Your task to perform on an android device: turn on location history Image 0: 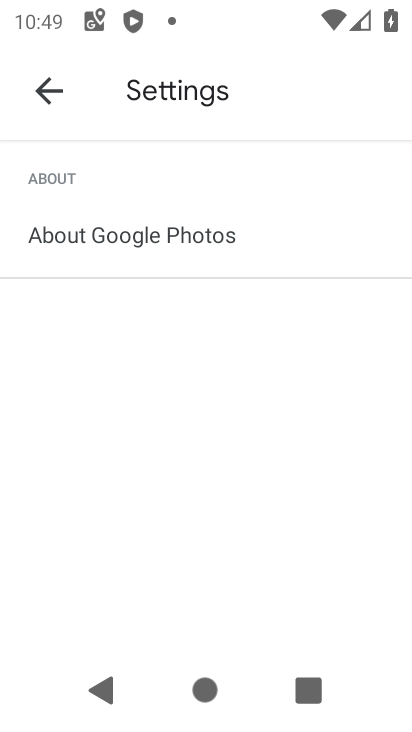
Step 0: press home button
Your task to perform on an android device: turn on location history Image 1: 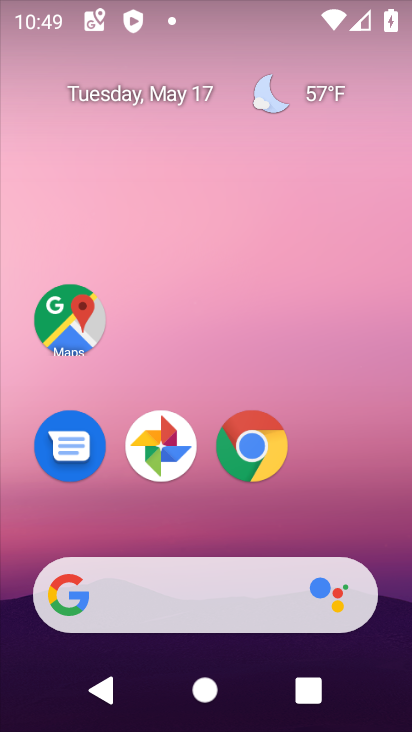
Step 1: drag from (182, 576) to (191, 15)
Your task to perform on an android device: turn on location history Image 2: 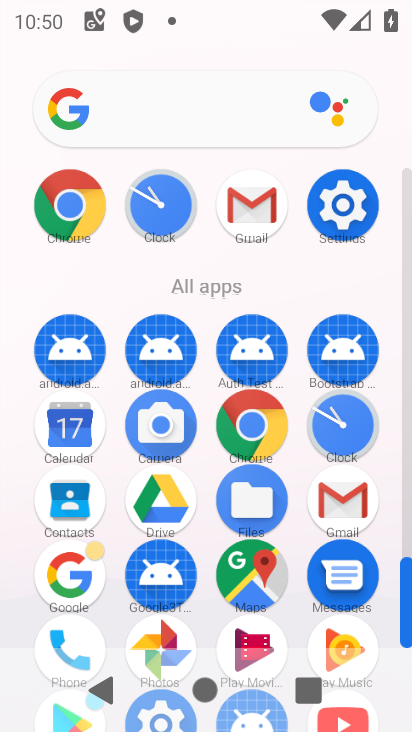
Step 2: click (344, 201)
Your task to perform on an android device: turn on location history Image 3: 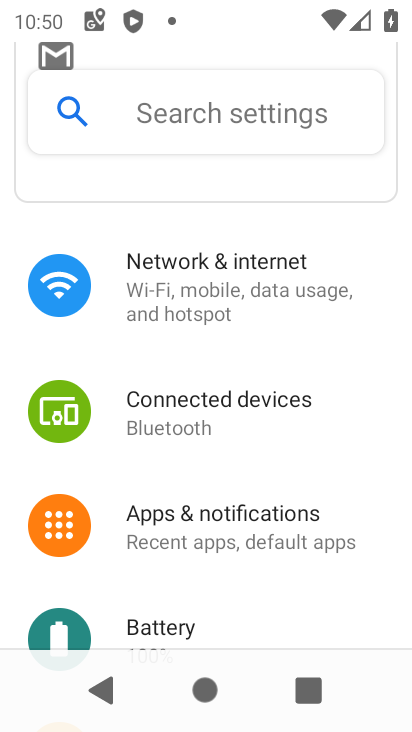
Step 3: drag from (274, 440) to (1, 368)
Your task to perform on an android device: turn on location history Image 4: 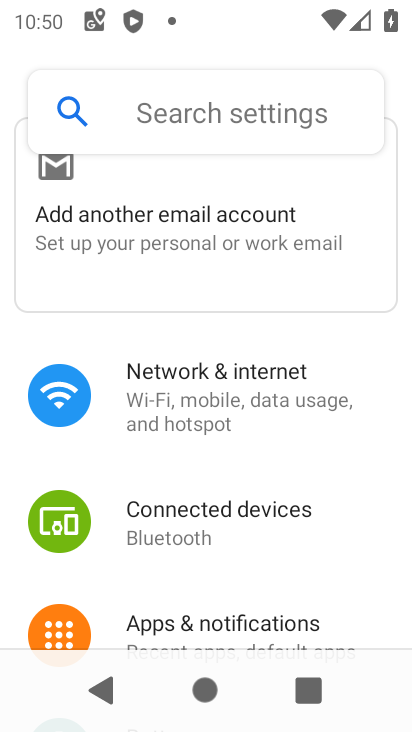
Step 4: drag from (117, 522) to (135, 9)
Your task to perform on an android device: turn on location history Image 5: 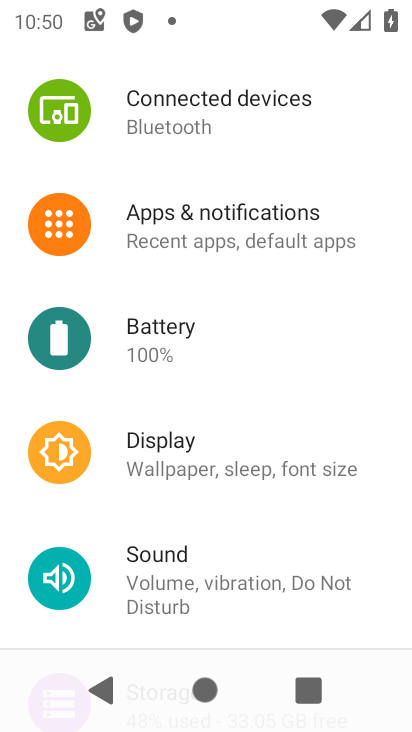
Step 5: drag from (197, 476) to (212, 9)
Your task to perform on an android device: turn on location history Image 6: 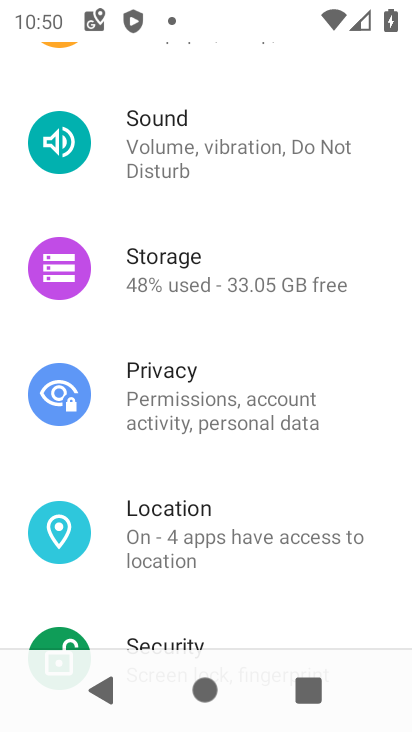
Step 6: click (195, 524)
Your task to perform on an android device: turn on location history Image 7: 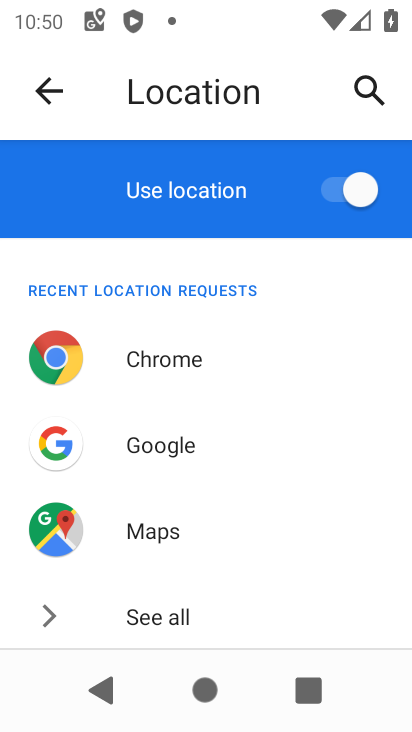
Step 7: drag from (217, 536) to (208, 89)
Your task to perform on an android device: turn on location history Image 8: 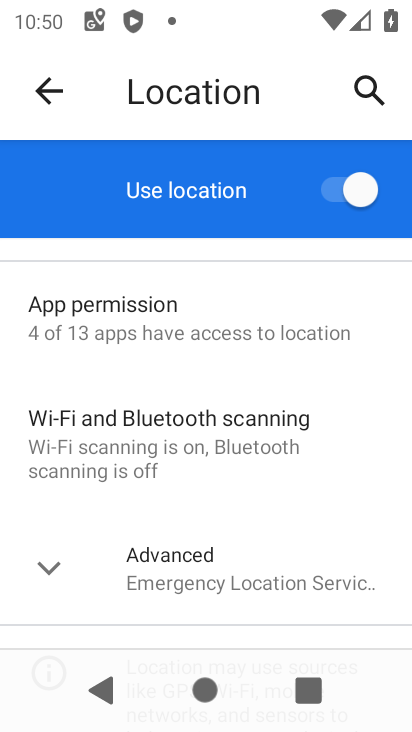
Step 8: click (201, 584)
Your task to perform on an android device: turn on location history Image 9: 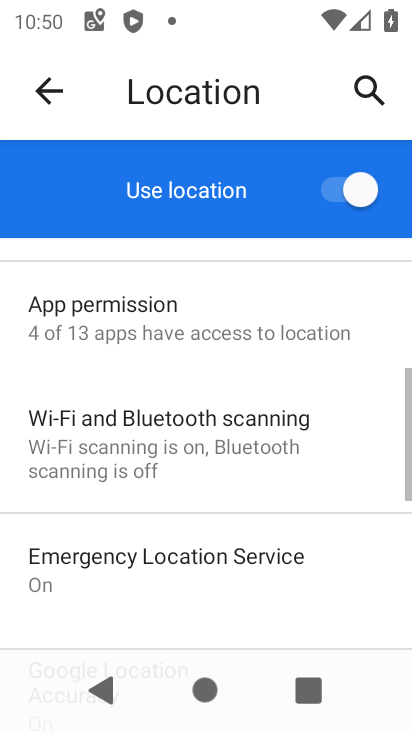
Step 9: drag from (201, 584) to (201, 73)
Your task to perform on an android device: turn on location history Image 10: 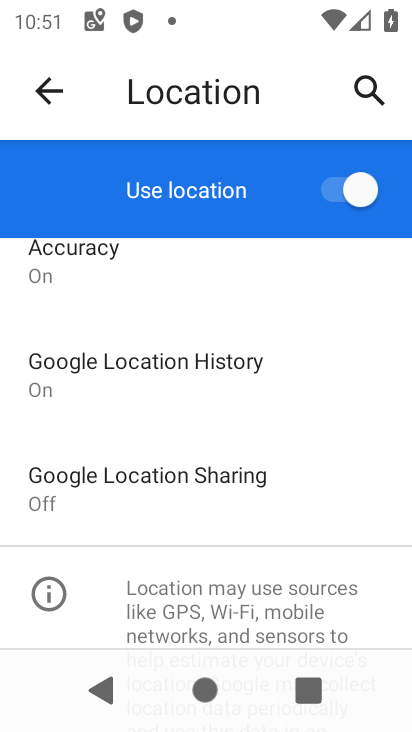
Step 10: drag from (269, 547) to (265, 21)
Your task to perform on an android device: turn on location history Image 11: 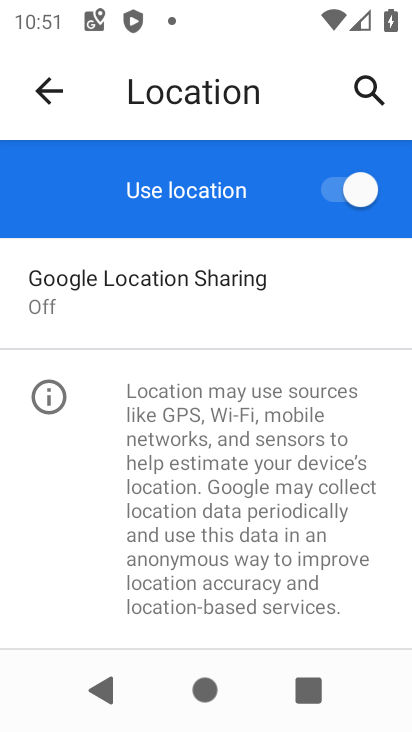
Step 11: drag from (173, 314) to (185, 551)
Your task to perform on an android device: turn on location history Image 12: 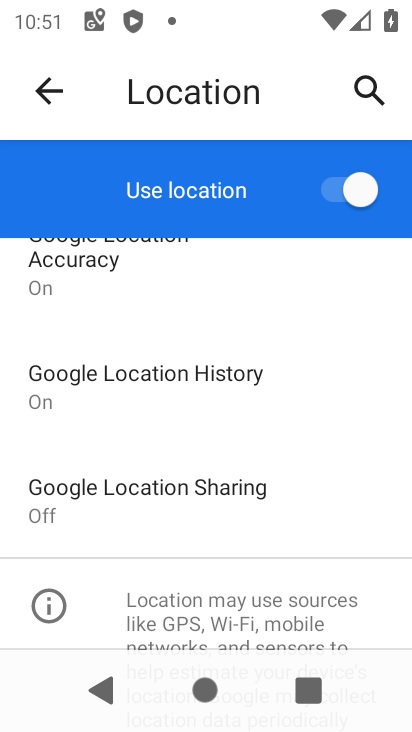
Step 12: click (149, 396)
Your task to perform on an android device: turn on location history Image 13: 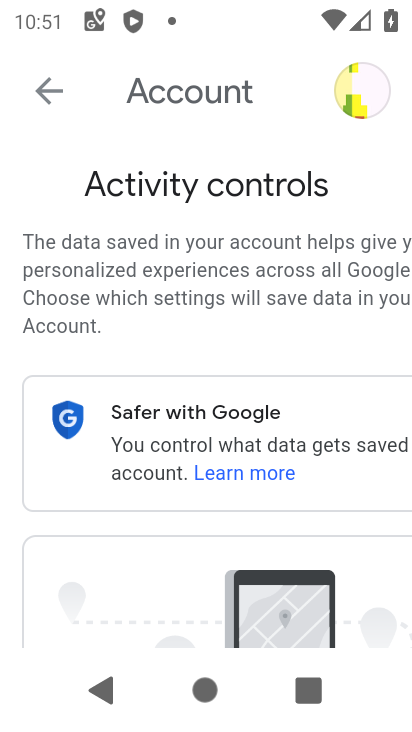
Step 13: drag from (290, 524) to (2, 240)
Your task to perform on an android device: turn on location history Image 14: 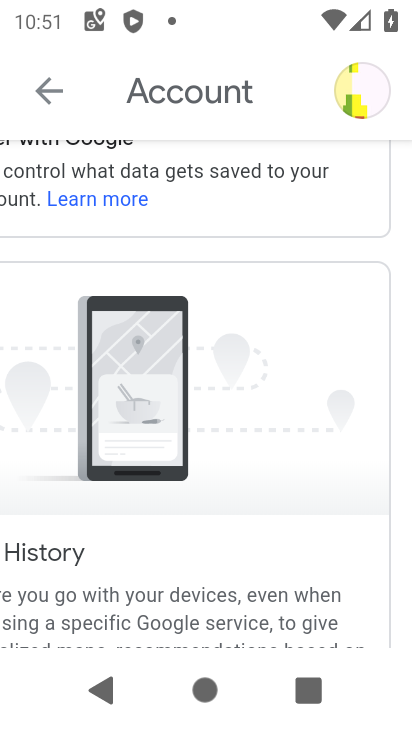
Step 14: drag from (274, 618) to (241, 259)
Your task to perform on an android device: turn on location history Image 15: 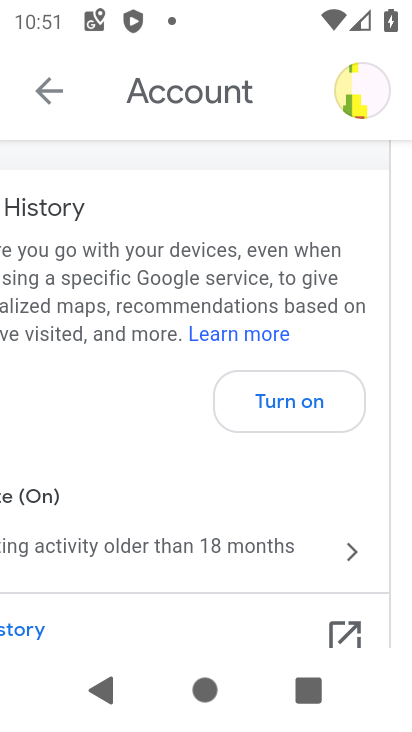
Step 15: click (282, 409)
Your task to perform on an android device: turn on location history Image 16: 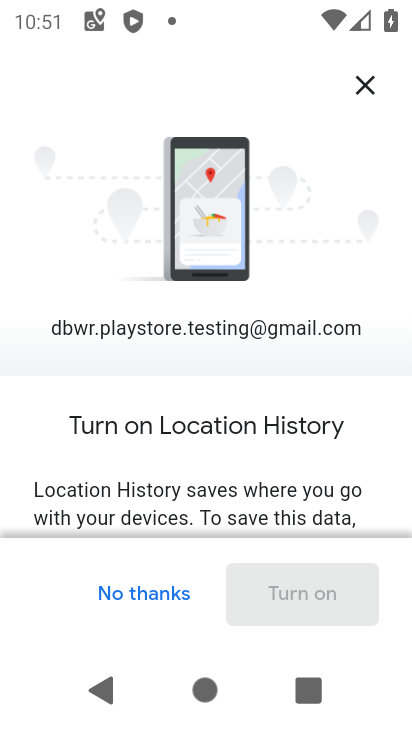
Step 16: drag from (218, 490) to (144, 7)
Your task to perform on an android device: turn on location history Image 17: 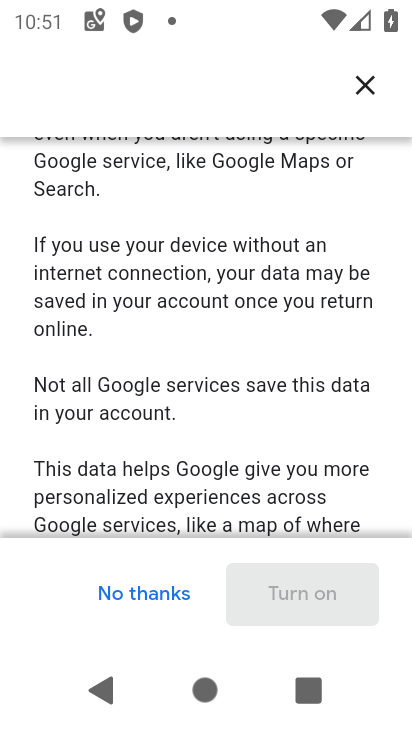
Step 17: drag from (239, 492) to (103, 7)
Your task to perform on an android device: turn on location history Image 18: 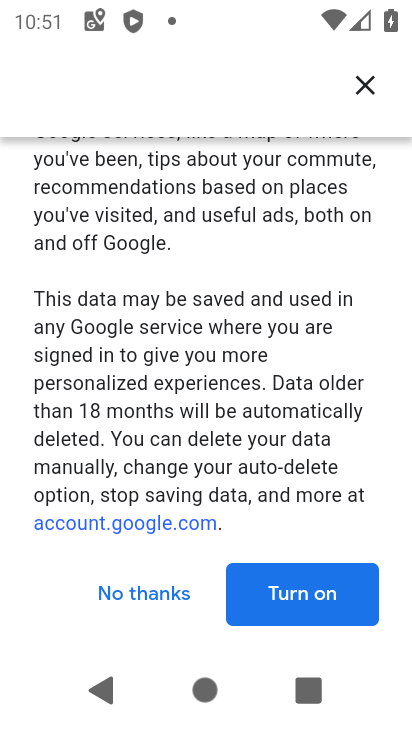
Step 18: click (302, 597)
Your task to perform on an android device: turn on location history Image 19: 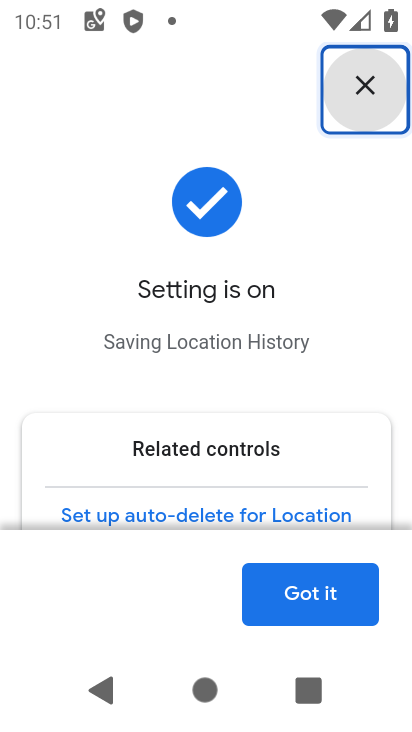
Step 19: click (298, 591)
Your task to perform on an android device: turn on location history Image 20: 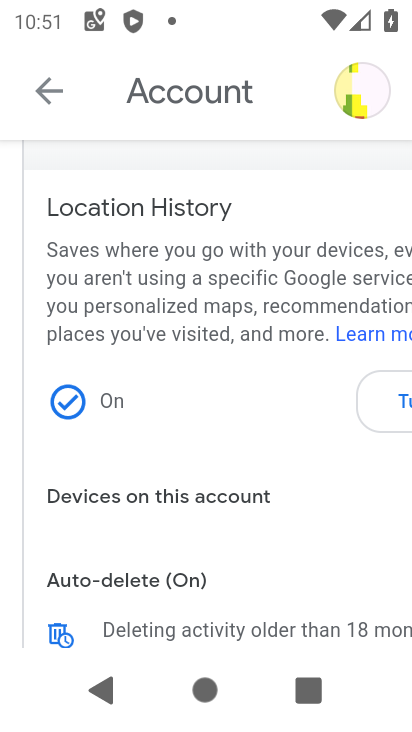
Step 20: task complete